Your task to perform on an android device: Go to location settings Image 0: 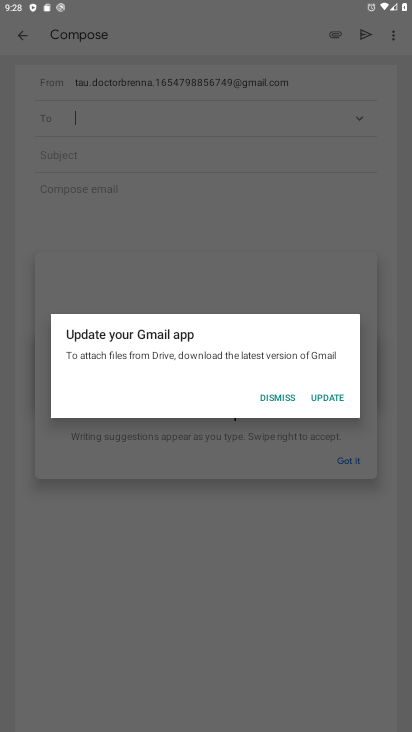
Step 0: press home button
Your task to perform on an android device: Go to location settings Image 1: 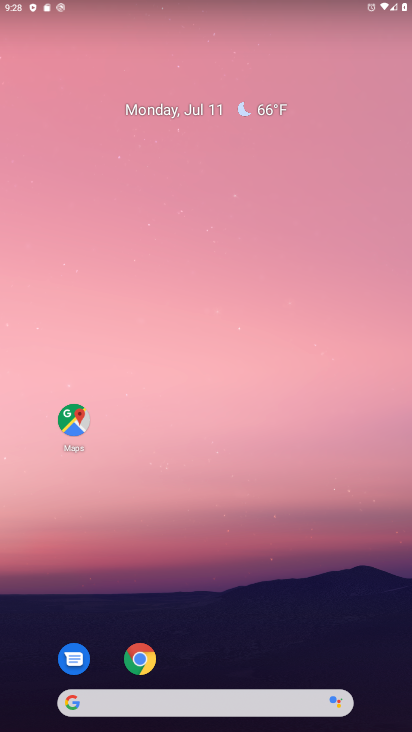
Step 1: drag from (343, 638) to (347, 171)
Your task to perform on an android device: Go to location settings Image 2: 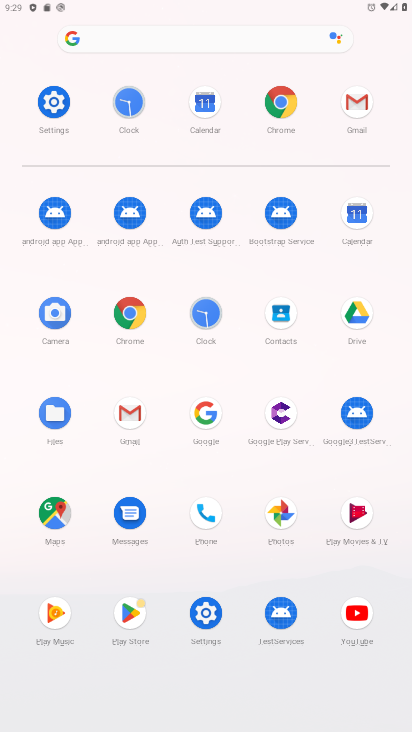
Step 2: click (213, 613)
Your task to perform on an android device: Go to location settings Image 3: 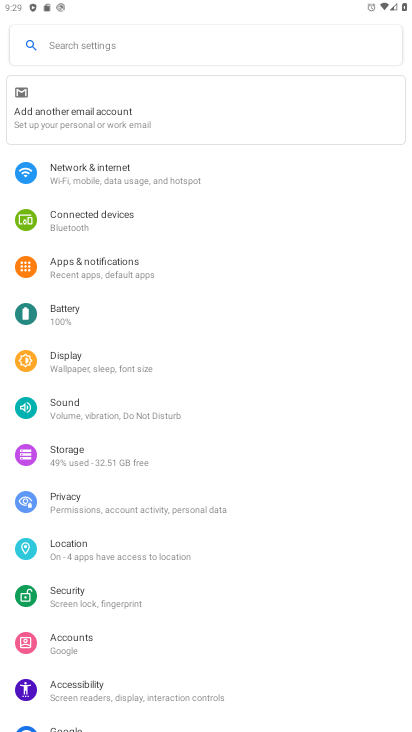
Step 3: drag from (367, 571) to (365, 464)
Your task to perform on an android device: Go to location settings Image 4: 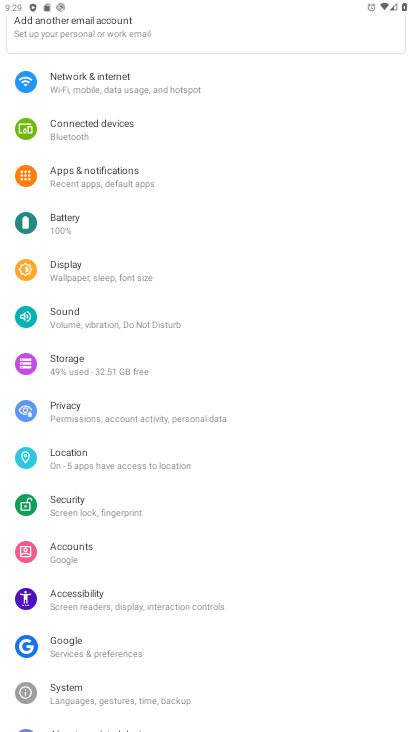
Step 4: drag from (355, 606) to (347, 473)
Your task to perform on an android device: Go to location settings Image 5: 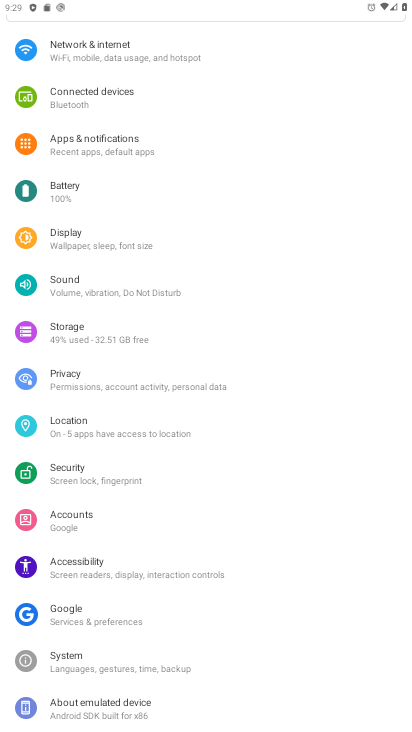
Step 5: click (211, 426)
Your task to perform on an android device: Go to location settings Image 6: 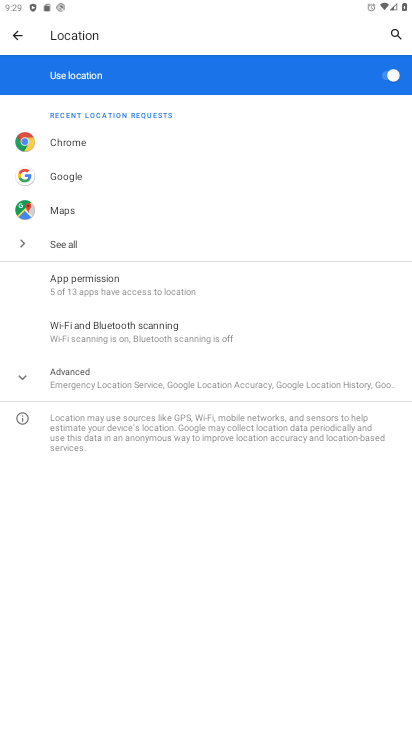
Step 6: task complete